Your task to perform on an android device: choose inbox layout in the gmail app Image 0: 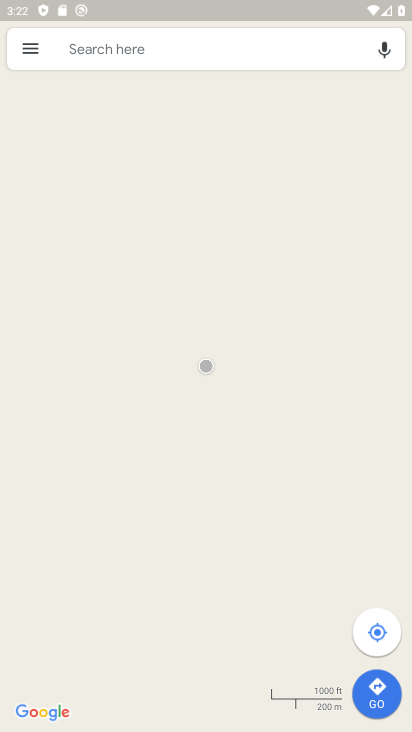
Step 0: press home button
Your task to perform on an android device: choose inbox layout in the gmail app Image 1: 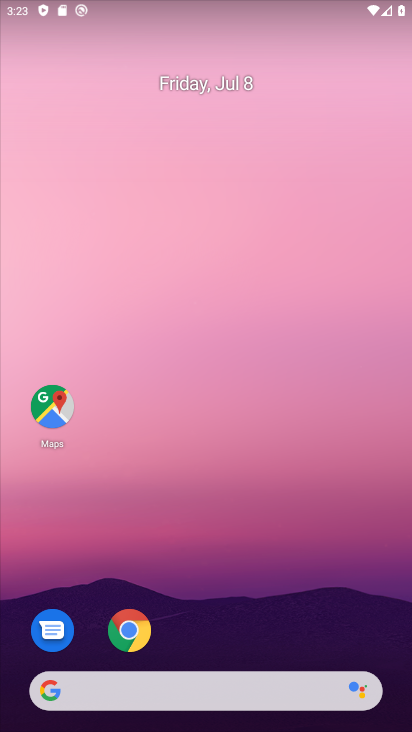
Step 1: drag from (217, 631) to (177, 224)
Your task to perform on an android device: choose inbox layout in the gmail app Image 2: 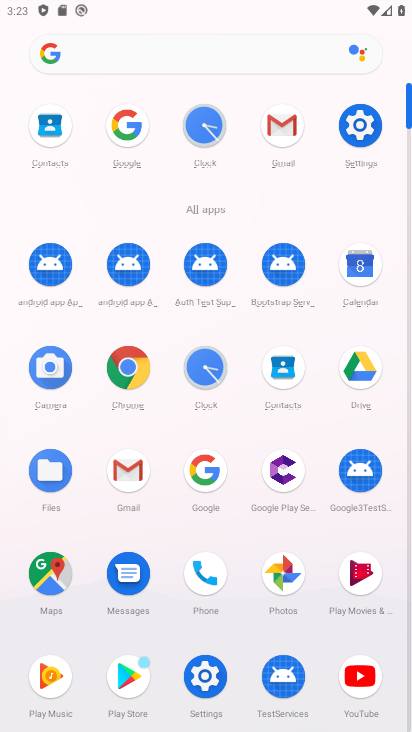
Step 2: click (280, 123)
Your task to perform on an android device: choose inbox layout in the gmail app Image 3: 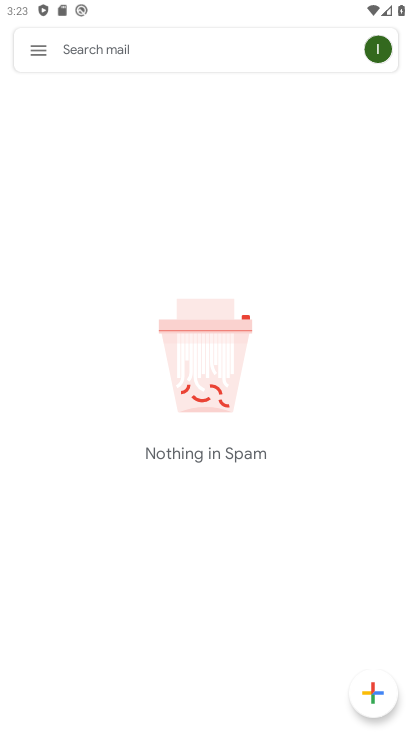
Step 3: click (37, 49)
Your task to perform on an android device: choose inbox layout in the gmail app Image 4: 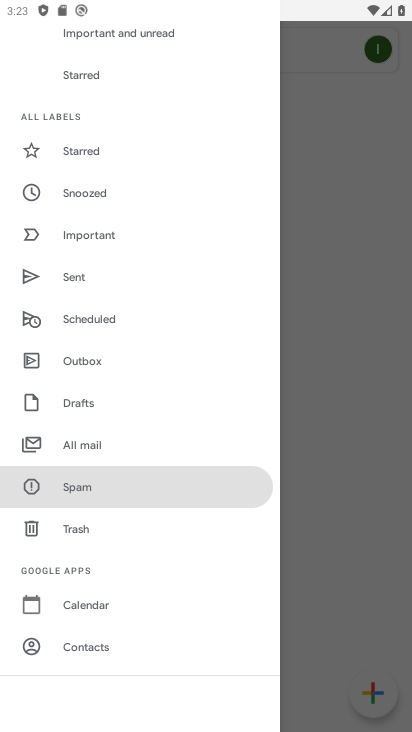
Step 4: drag from (104, 586) to (140, 330)
Your task to perform on an android device: choose inbox layout in the gmail app Image 5: 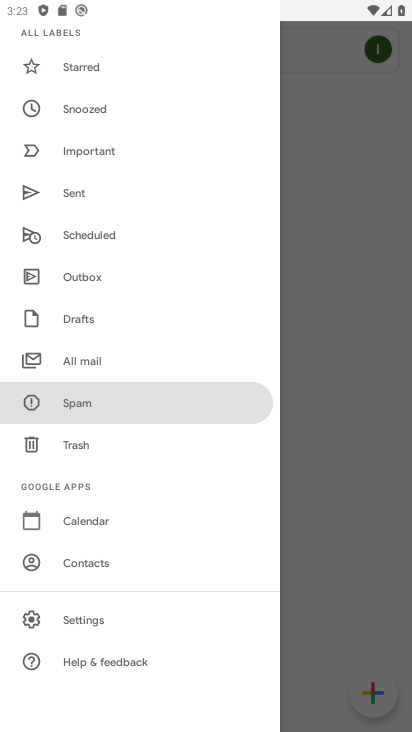
Step 5: click (74, 625)
Your task to perform on an android device: choose inbox layout in the gmail app Image 6: 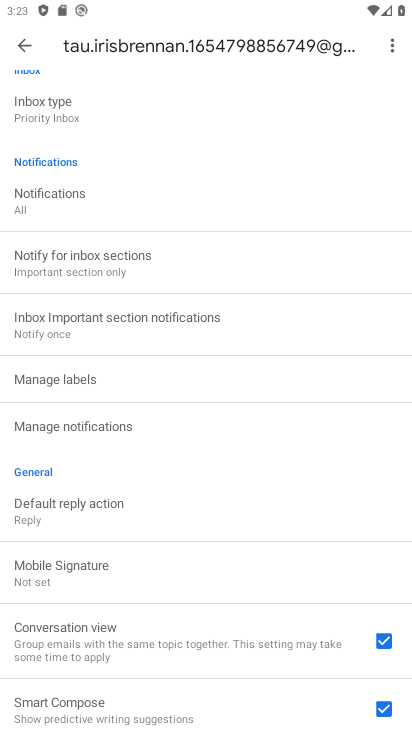
Step 6: drag from (66, 137) to (105, 326)
Your task to perform on an android device: choose inbox layout in the gmail app Image 7: 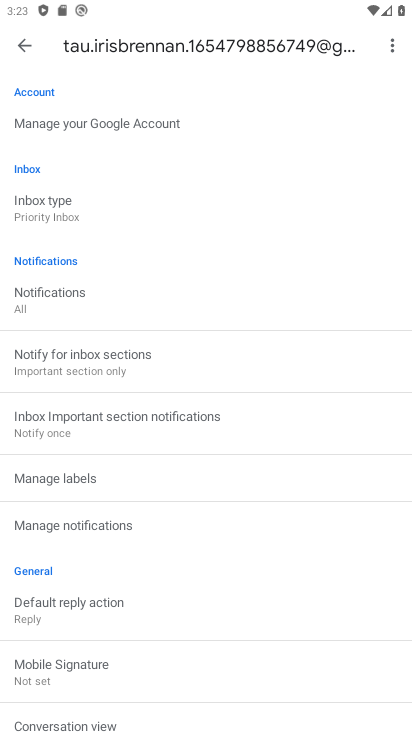
Step 7: click (51, 209)
Your task to perform on an android device: choose inbox layout in the gmail app Image 8: 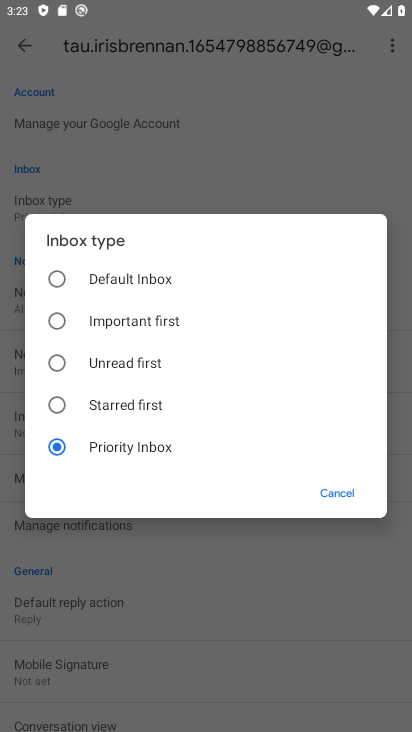
Step 8: click (60, 402)
Your task to perform on an android device: choose inbox layout in the gmail app Image 9: 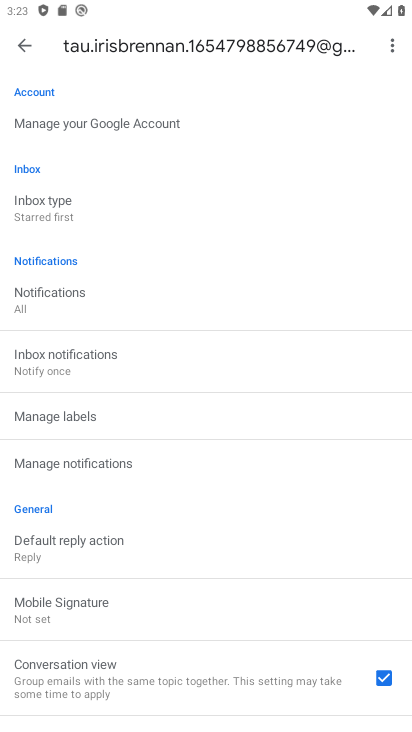
Step 9: task complete